Your task to perform on an android device: Open Youtube and go to the subscriptions tab Image 0: 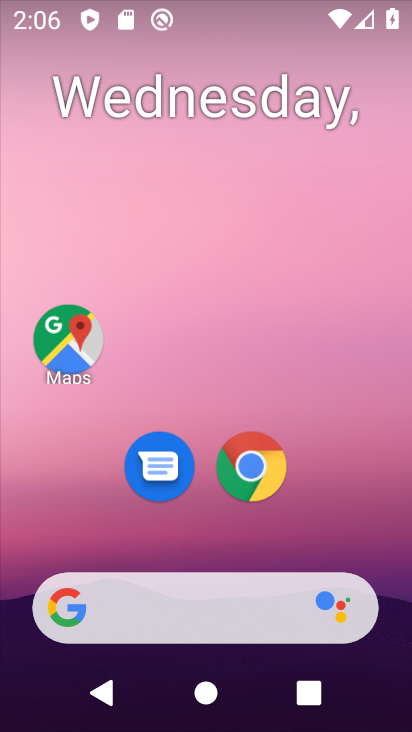
Step 0: drag from (360, 464) to (0, 375)
Your task to perform on an android device: Open Youtube and go to the subscriptions tab Image 1: 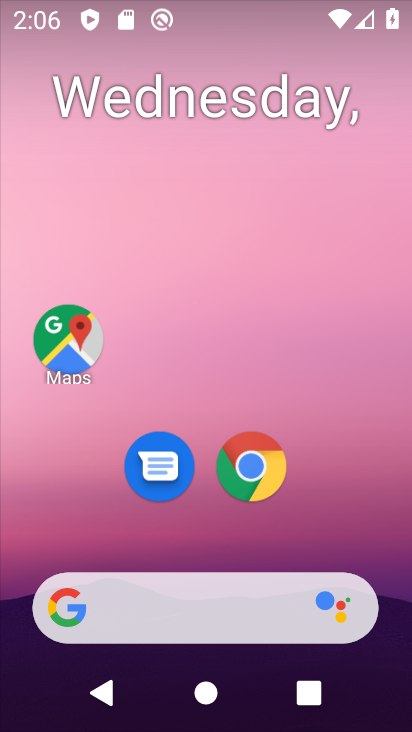
Step 1: drag from (16, 665) to (23, 10)
Your task to perform on an android device: Open Youtube and go to the subscriptions tab Image 2: 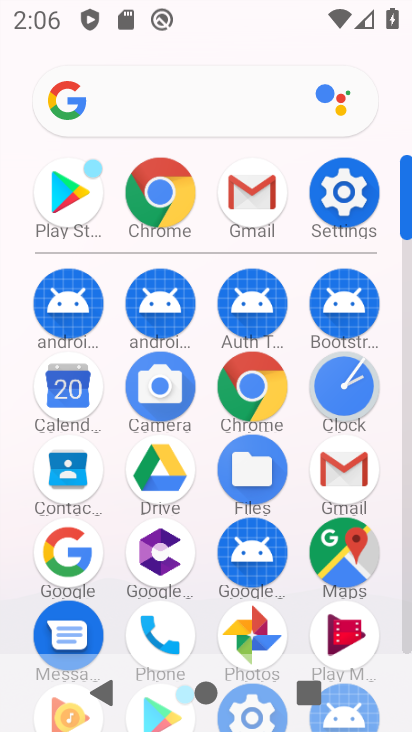
Step 2: drag from (24, 613) to (0, 265)
Your task to perform on an android device: Open Youtube and go to the subscriptions tab Image 3: 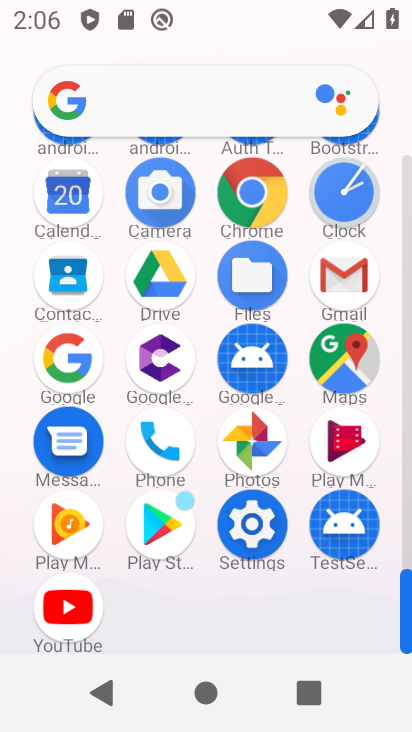
Step 3: click (64, 591)
Your task to perform on an android device: Open Youtube and go to the subscriptions tab Image 4: 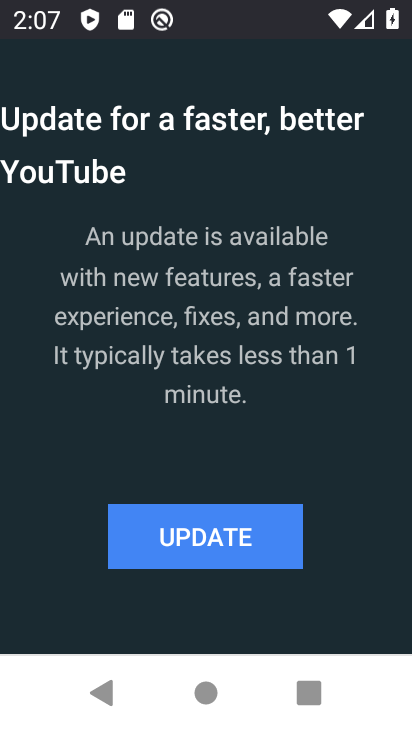
Step 4: click (224, 527)
Your task to perform on an android device: Open Youtube and go to the subscriptions tab Image 5: 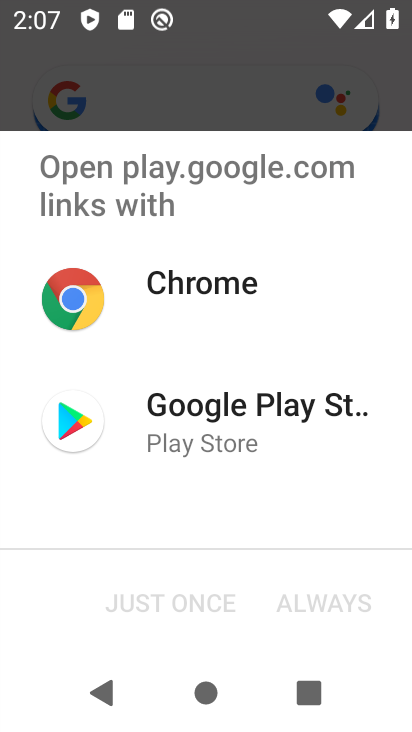
Step 5: click (204, 410)
Your task to perform on an android device: Open Youtube and go to the subscriptions tab Image 6: 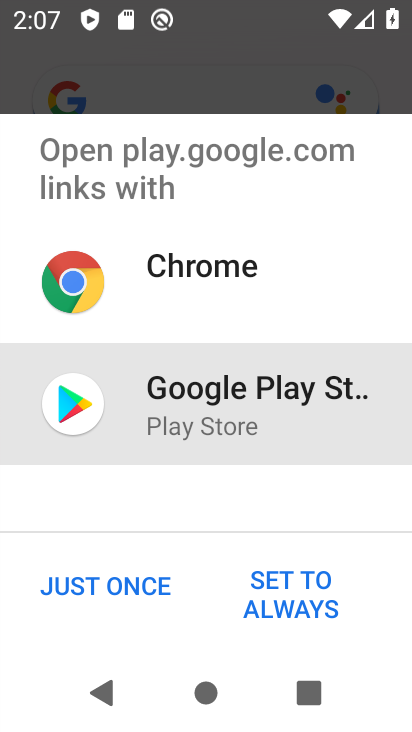
Step 6: click (112, 584)
Your task to perform on an android device: Open Youtube and go to the subscriptions tab Image 7: 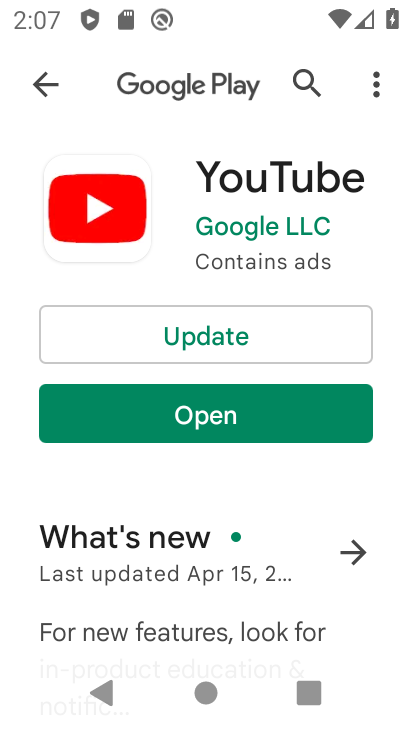
Step 7: click (167, 340)
Your task to perform on an android device: Open Youtube and go to the subscriptions tab Image 8: 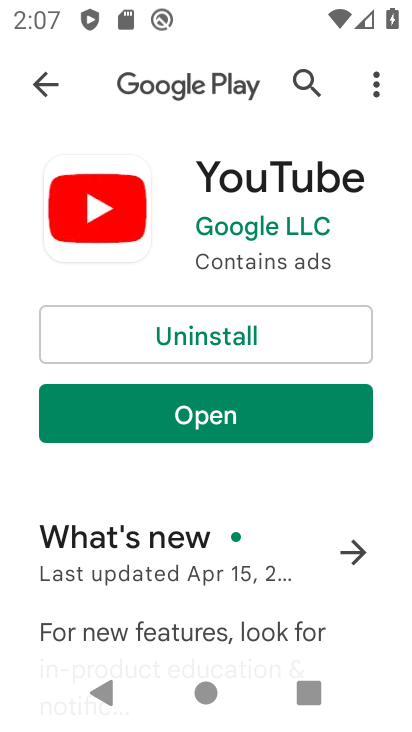
Step 8: click (226, 397)
Your task to perform on an android device: Open Youtube and go to the subscriptions tab Image 9: 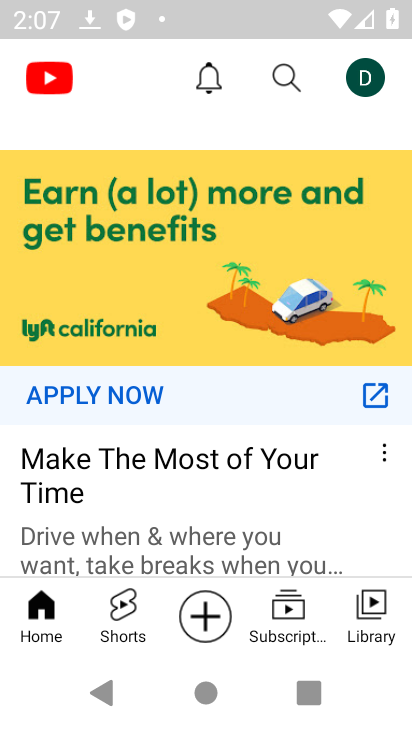
Step 9: drag from (253, 539) to (245, 160)
Your task to perform on an android device: Open Youtube and go to the subscriptions tab Image 10: 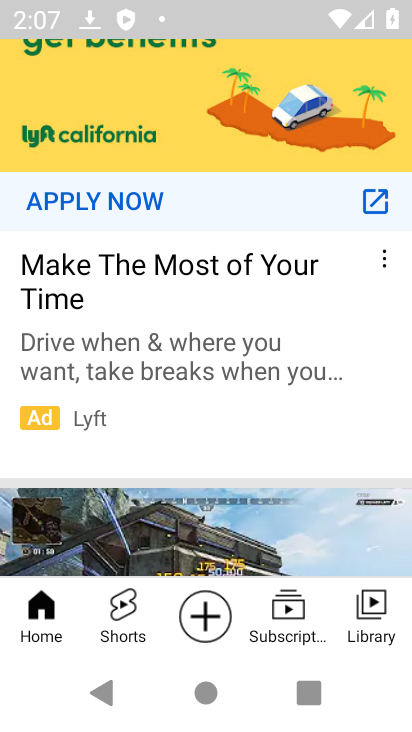
Step 10: drag from (300, 508) to (278, 173)
Your task to perform on an android device: Open Youtube and go to the subscriptions tab Image 11: 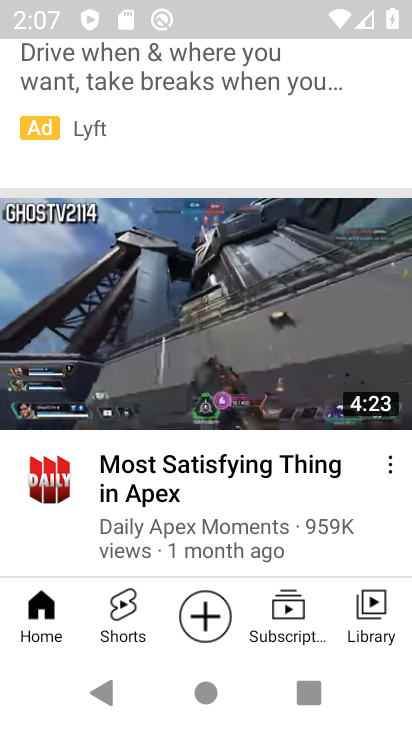
Step 11: click (306, 624)
Your task to perform on an android device: Open Youtube and go to the subscriptions tab Image 12: 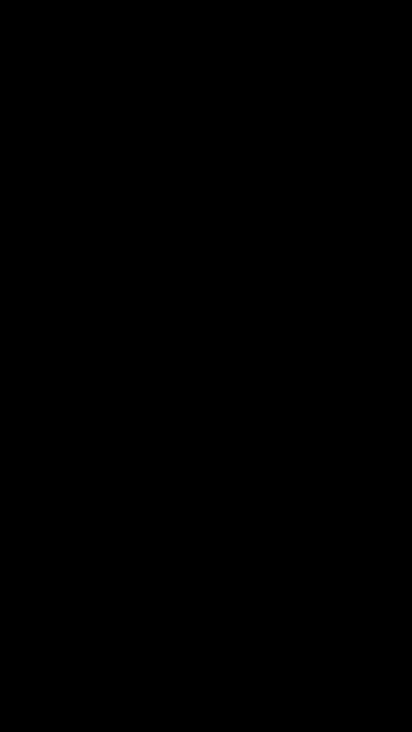
Step 12: task complete